Your task to perform on an android device: Go to battery settings Image 0: 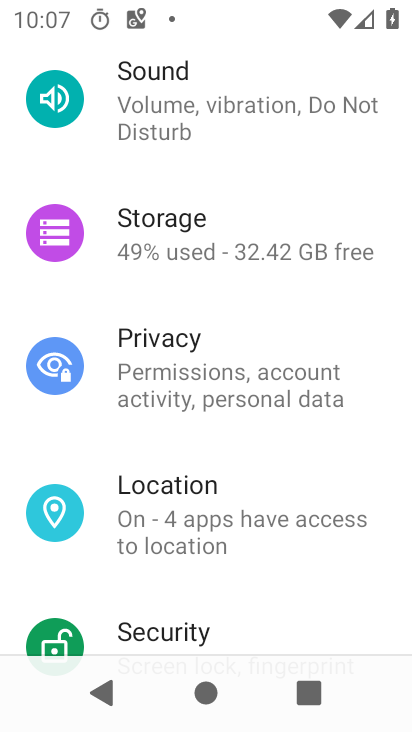
Step 0: drag from (273, 262) to (247, 504)
Your task to perform on an android device: Go to battery settings Image 1: 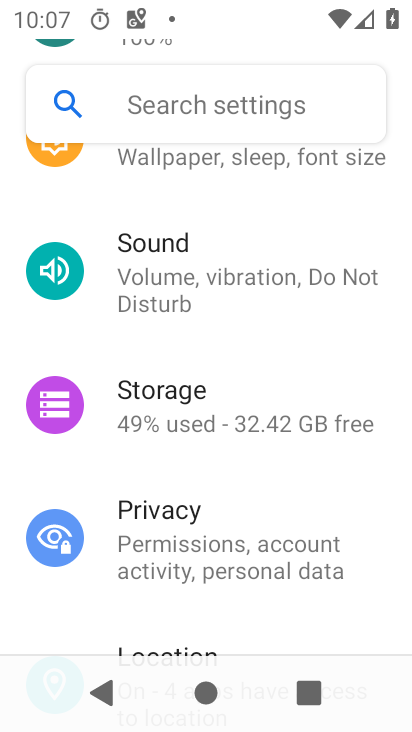
Step 1: drag from (230, 295) to (226, 477)
Your task to perform on an android device: Go to battery settings Image 2: 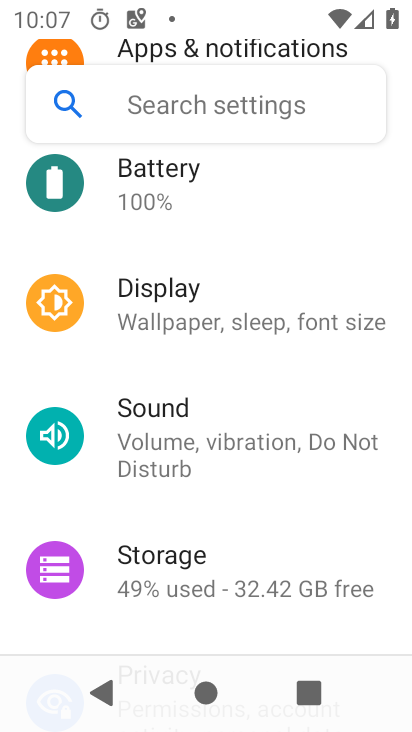
Step 2: drag from (218, 254) to (219, 389)
Your task to perform on an android device: Go to battery settings Image 3: 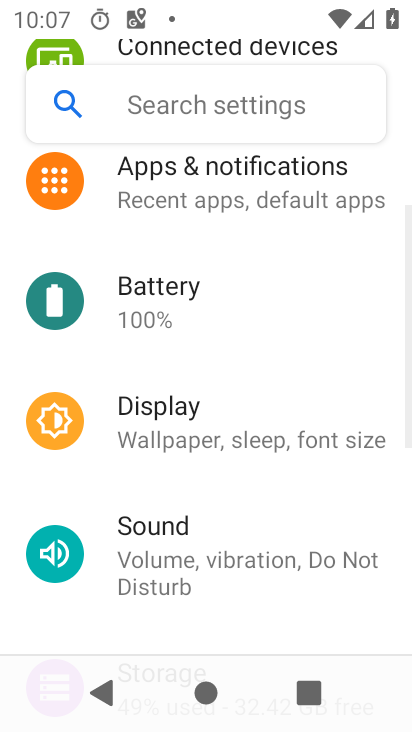
Step 3: click (199, 312)
Your task to perform on an android device: Go to battery settings Image 4: 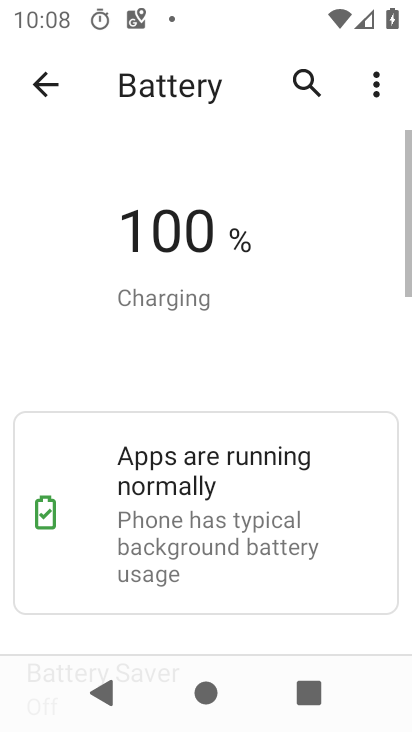
Step 4: task complete